Your task to perform on an android device: Clear the shopping cart on walmart.com. Search for "corsair k70" on walmart.com, select the first entry, add it to the cart, then select checkout. Image 0: 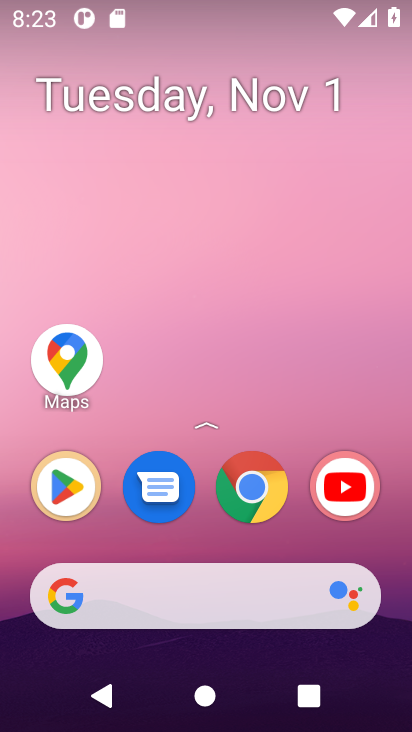
Step 0: press home button
Your task to perform on an android device: Clear the shopping cart on walmart.com. Search for "corsair k70" on walmart.com, select the first entry, add it to the cart, then select checkout. Image 1: 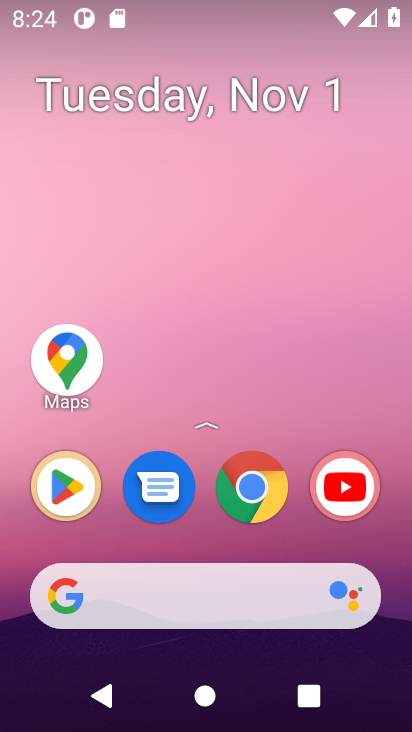
Step 1: drag from (205, 440) to (239, 0)
Your task to perform on an android device: Clear the shopping cart on walmart.com. Search for "corsair k70" on walmart.com, select the first entry, add it to the cart, then select checkout. Image 2: 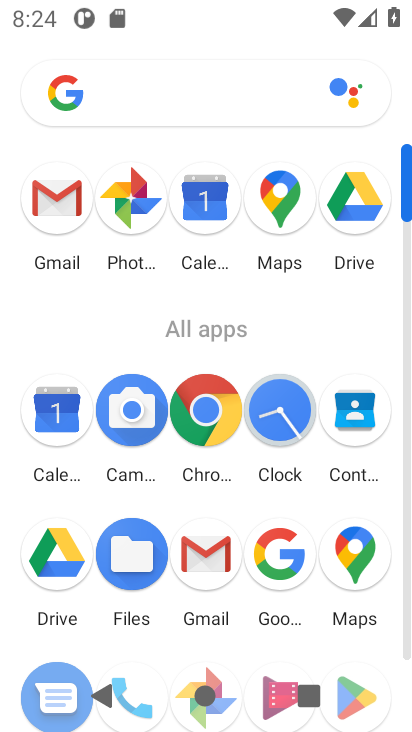
Step 2: click (205, 403)
Your task to perform on an android device: Clear the shopping cart on walmart.com. Search for "corsair k70" on walmart.com, select the first entry, add it to the cart, then select checkout. Image 3: 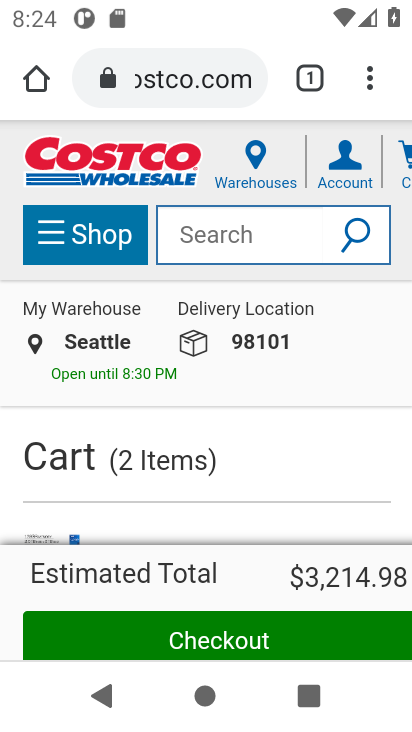
Step 3: click (186, 74)
Your task to perform on an android device: Clear the shopping cart on walmart.com. Search for "corsair k70" on walmart.com, select the first entry, add it to the cart, then select checkout. Image 4: 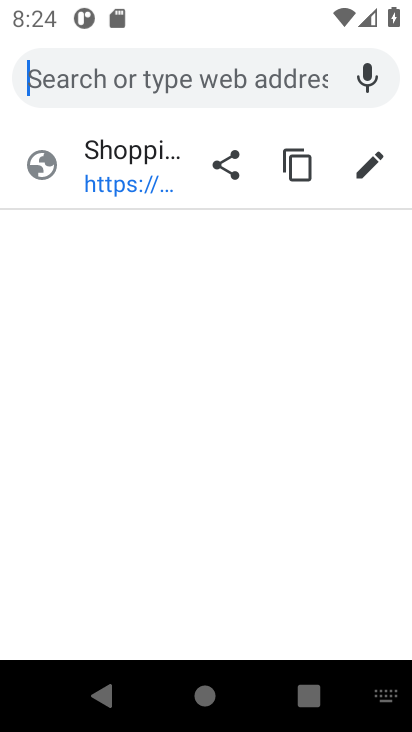
Step 4: type "walmart"
Your task to perform on an android device: Clear the shopping cart on walmart.com. Search for "corsair k70" on walmart.com, select the first entry, add it to the cart, then select checkout. Image 5: 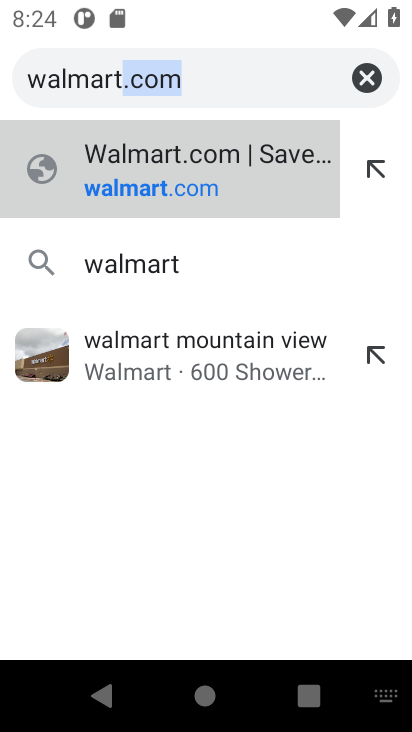
Step 5: click (124, 168)
Your task to perform on an android device: Clear the shopping cart on walmart.com. Search for "corsair k70" on walmart.com, select the first entry, add it to the cart, then select checkout. Image 6: 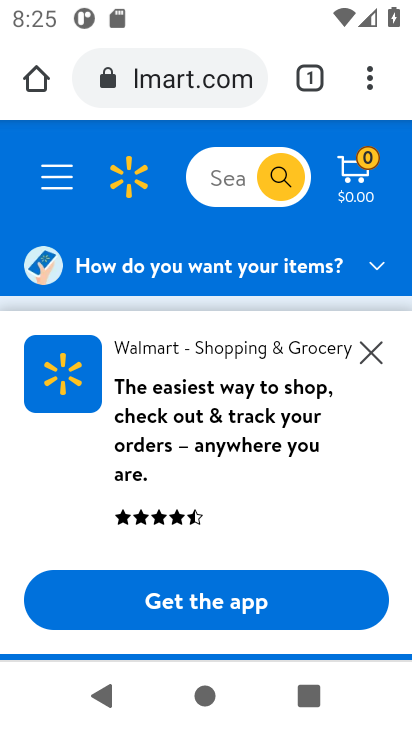
Step 6: click (225, 177)
Your task to perform on an android device: Clear the shopping cart on walmart.com. Search for "corsair k70" on walmart.com, select the first entry, add it to the cart, then select checkout. Image 7: 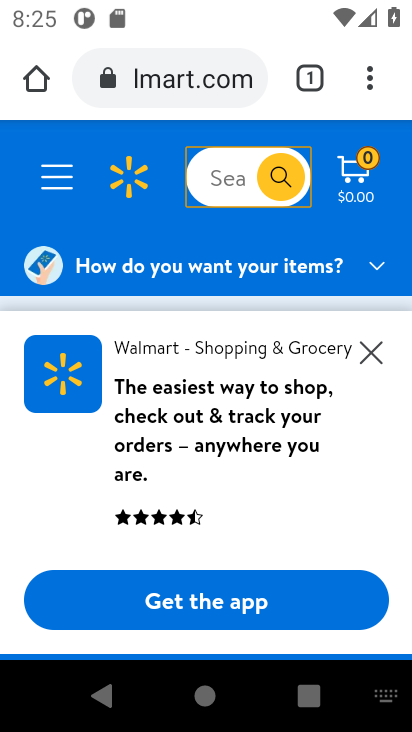
Step 7: type "corsair k70"
Your task to perform on an android device: Clear the shopping cart on walmart.com. Search for "corsair k70" on walmart.com, select the first entry, add it to the cart, then select checkout. Image 8: 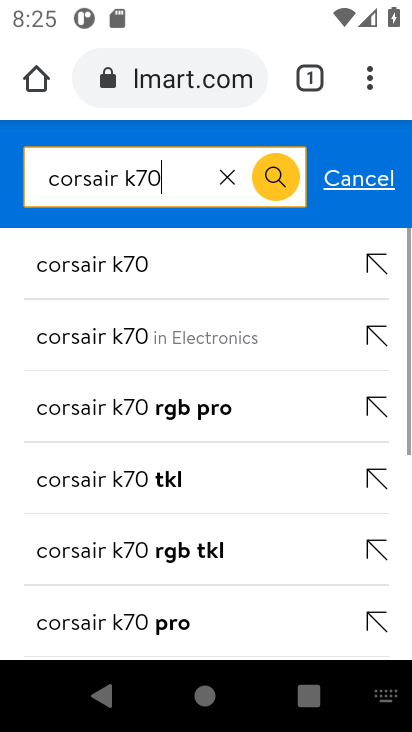
Step 8: click (102, 336)
Your task to perform on an android device: Clear the shopping cart on walmart.com. Search for "corsair k70" on walmart.com, select the first entry, add it to the cart, then select checkout. Image 9: 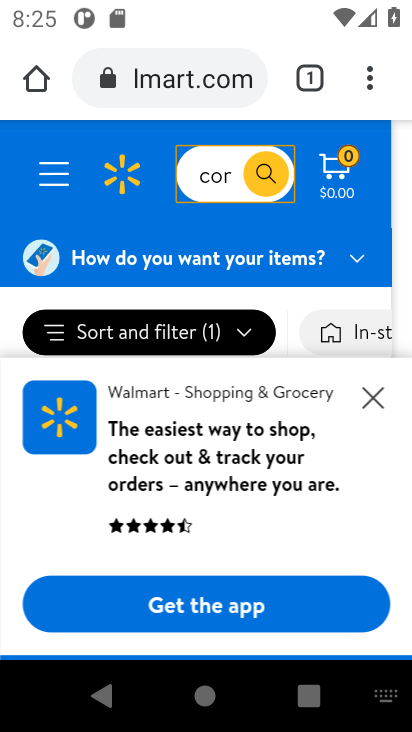
Step 9: click (371, 393)
Your task to perform on an android device: Clear the shopping cart on walmart.com. Search for "corsair k70" on walmart.com, select the first entry, add it to the cart, then select checkout. Image 10: 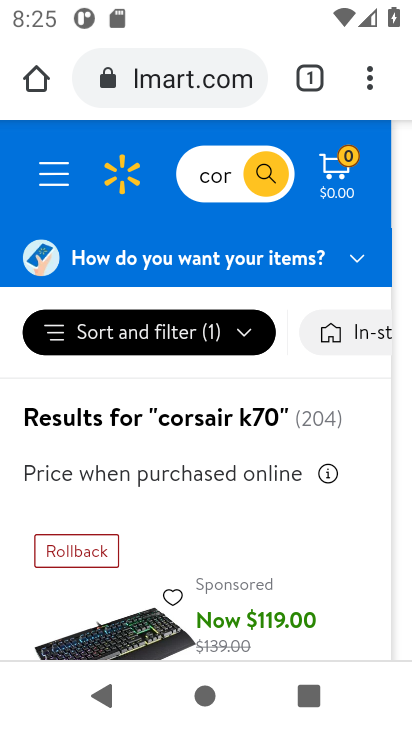
Step 10: drag from (183, 549) to (209, 211)
Your task to perform on an android device: Clear the shopping cart on walmart.com. Search for "corsair k70" on walmart.com, select the first entry, add it to the cart, then select checkout. Image 11: 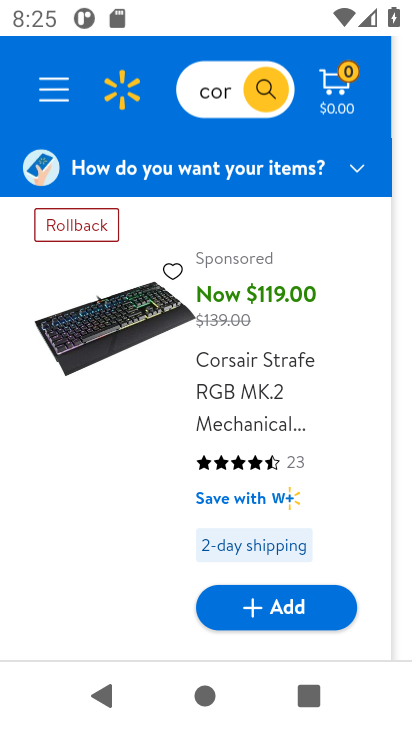
Step 11: click (252, 609)
Your task to perform on an android device: Clear the shopping cart on walmart.com. Search for "corsair k70" on walmart.com, select the first entry, add it to the cart, then select checkout. Image 12: 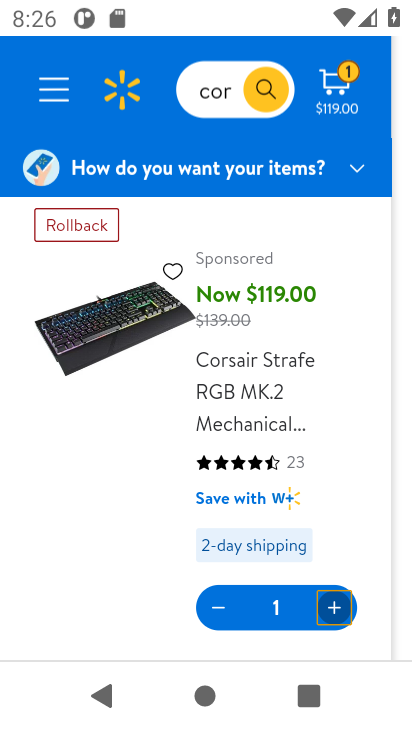
Step 12: click (335, 82)
Your task to perform on an android device: Clear the shopping cart on walmart.com. Search for "corsair k70" on walmart.com, select the first entry, add it to the cart, then select checkout. Image 13: 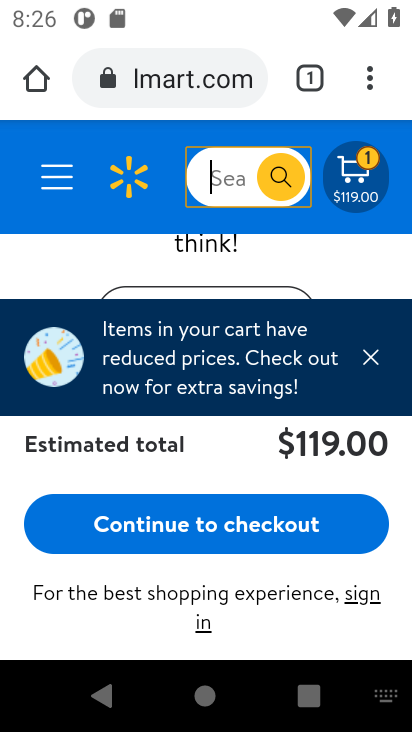
Step 13: click (224, 528)
Your task to perform on an android device: Clear the shopping cart on walmart.com. Search for "corsair k70" on walmart.com, select the first entry, add it to the cart, then select checkout. Image 14: 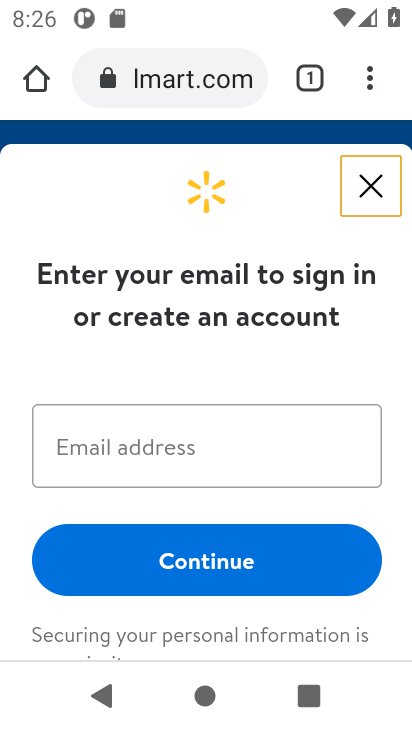
Step 14: task complete